Your task to perform on an android device: open app "Facebook Messenger" (install if not already installed) and enter user name: "divorce@inbox.com" and password: "caviar" Image 0: 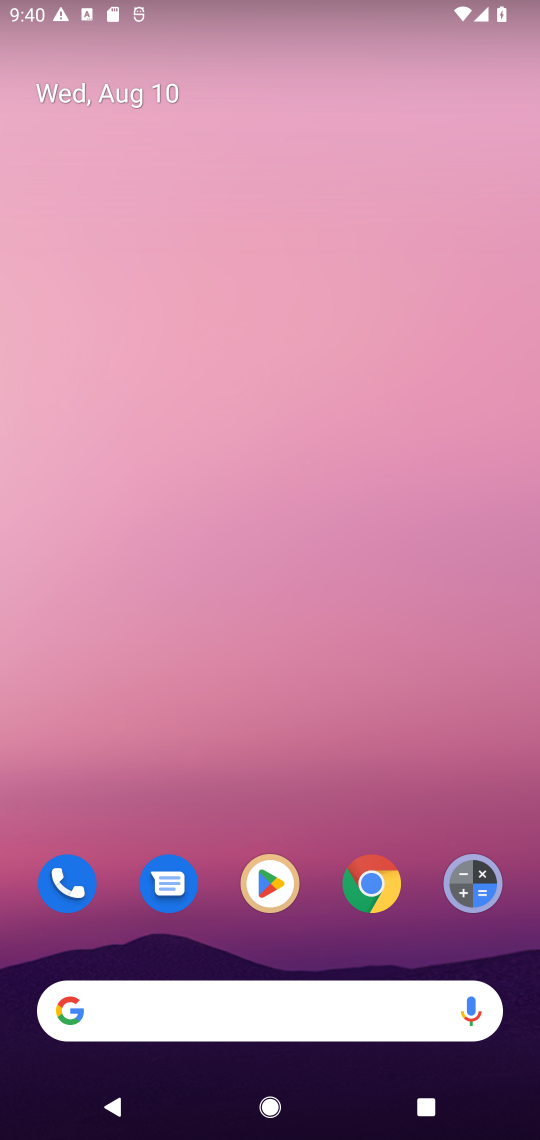
Step 0: drag from (333, 929) to (317, 109)
Your task to perform on an android device: open app "Facebook Messenger" (install if not already installed) and enter user name: "divorce@inbox.com" and password: "caviar" Image 1: 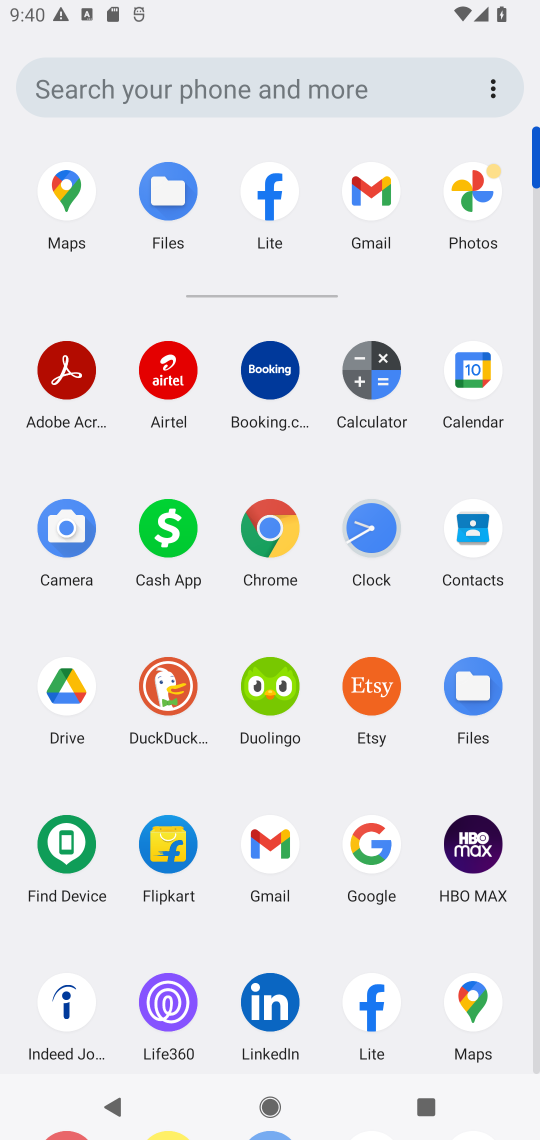
Step 1: drag from (335, 990) to (326, 537)
Your task to perform on an android device: open app "Facebook Messenger" (install if not already installed) and enter user name: "divorce@inbox.com" and password: "caviar" Image 2: 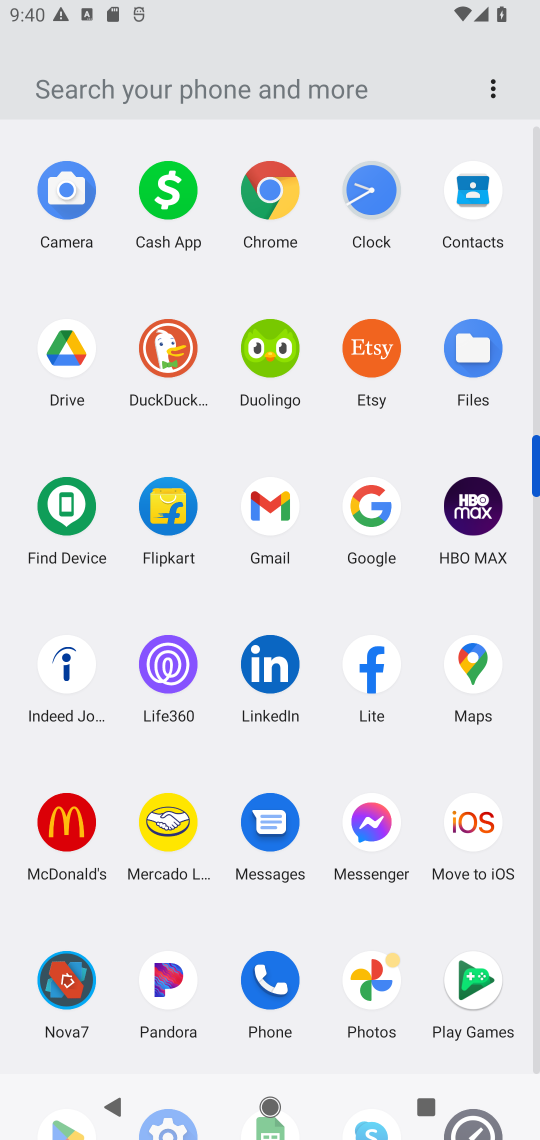
Step 2: drag from (358, 982) to (355, 569)
Your task to perform on an android device: open app "Facebook Messenger" (install if not already installed) and enter user name: "divorce@inbox.com" and password: "caviar" Image 3: 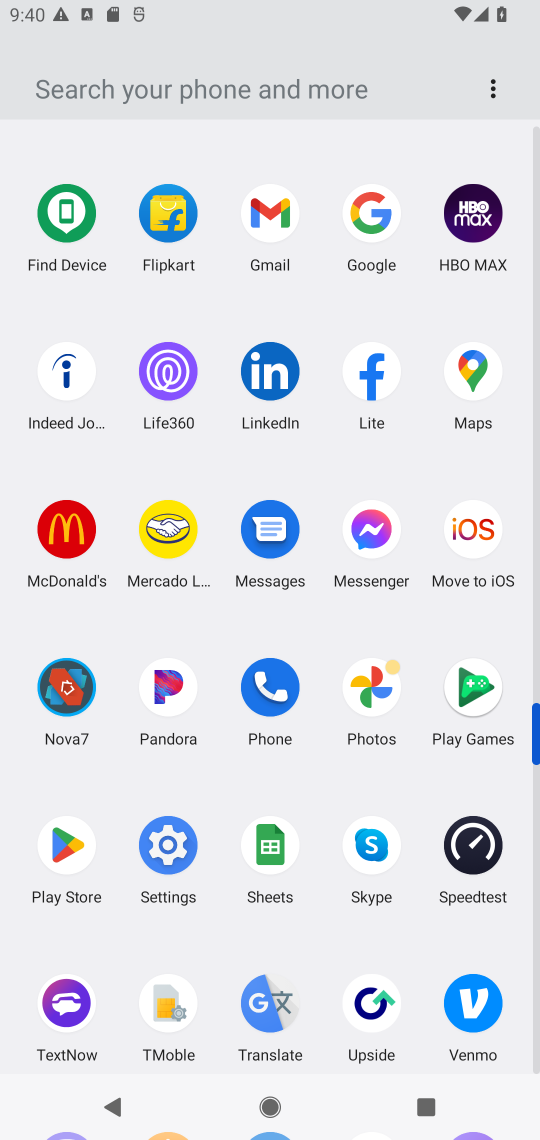
Step 3: click (65, 854)
Your task to perform on an android device: open app "Facebook Messenger" (install if not already installed) and enter user name: "divorce@inbox.com" and password: "caviar" Image 4: 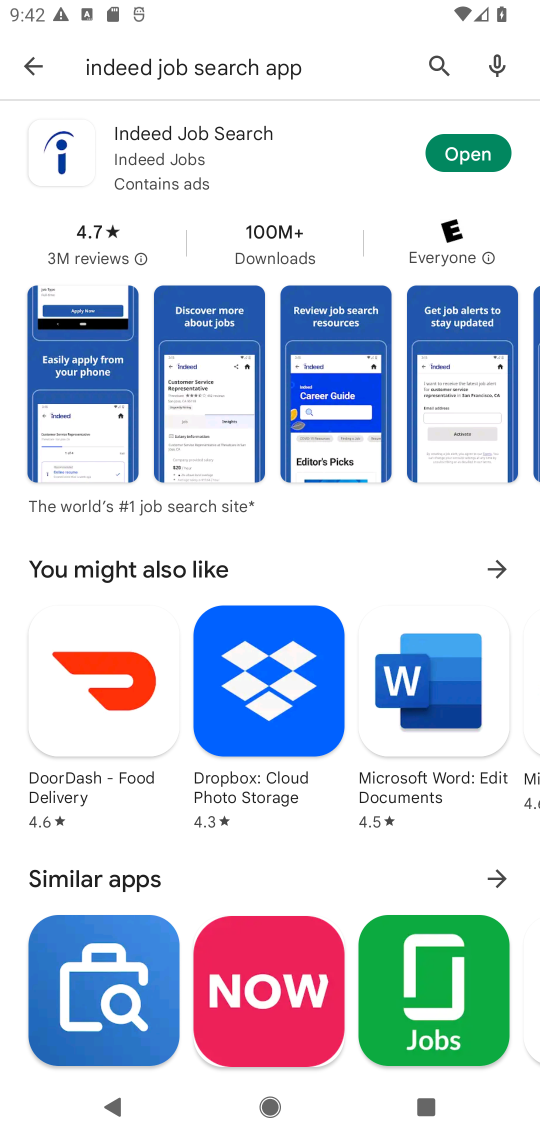
Step 4: click (441, 65)
Your task to perform on an android device: open app "Facebook Messenger" (install if not already installed) and enter user name: "divorce@inbox.com" and password: "caviar" Image 5: 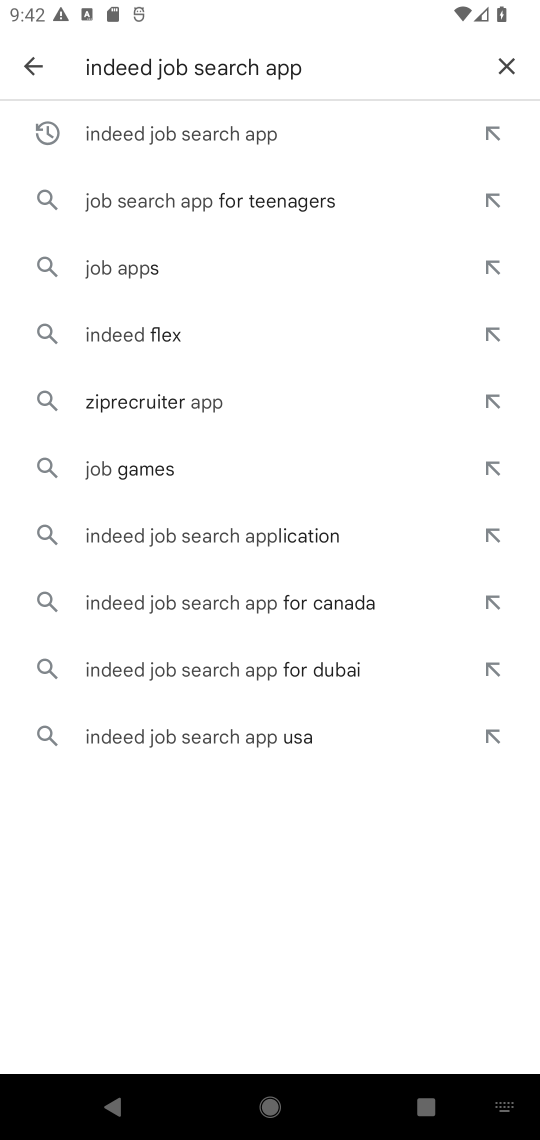
Step 5: click (508, 62)
Your task to perform on an android device: open app "Facebook Messenger" (install if not already installed) and enter user name: "divorce@inbox.com" and password: "caviar" Image 6: 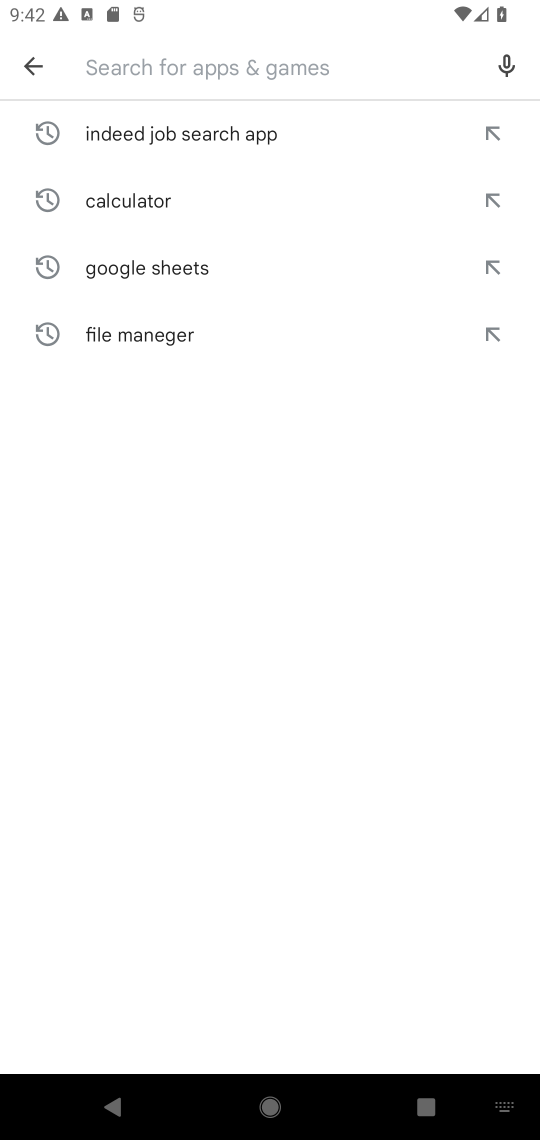
Step 6: type "Facebook Messenger"
Your task to perform on an android device: open app "Facebook Messenger" (install if not already installed) and enter user name: "divorce@inbox.com" and password: "caviar" Image 7: 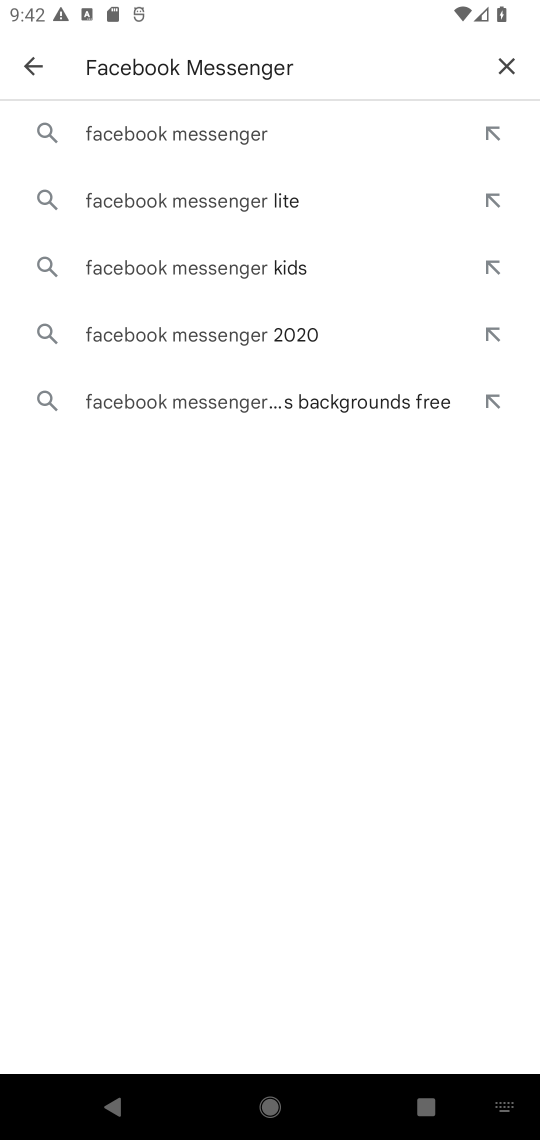
Step 7: click (191, 135)
Your task to perform on an android device: open app "Facebook Messenger" (install if not already installed) and enter user name: "divorce@inbox.com" and password: "caviar" Image 8: 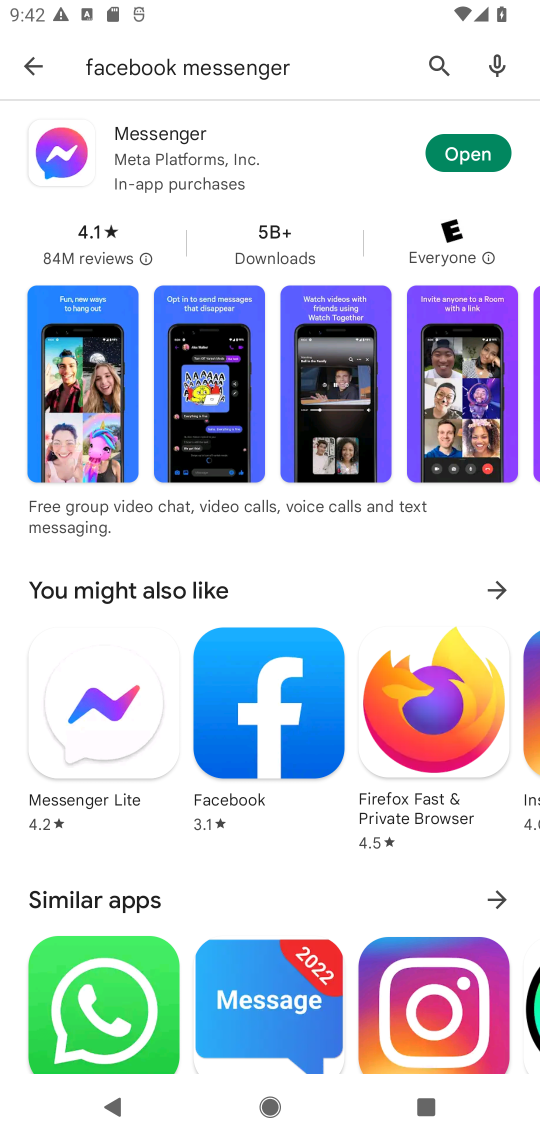
Step 8: click (460, 149)
Your task to perform on an android device: open app "Facebook Messenger" (install if not already installed) and enter user name: "divorce@inbox.com" and password: "caviar" Image 9: 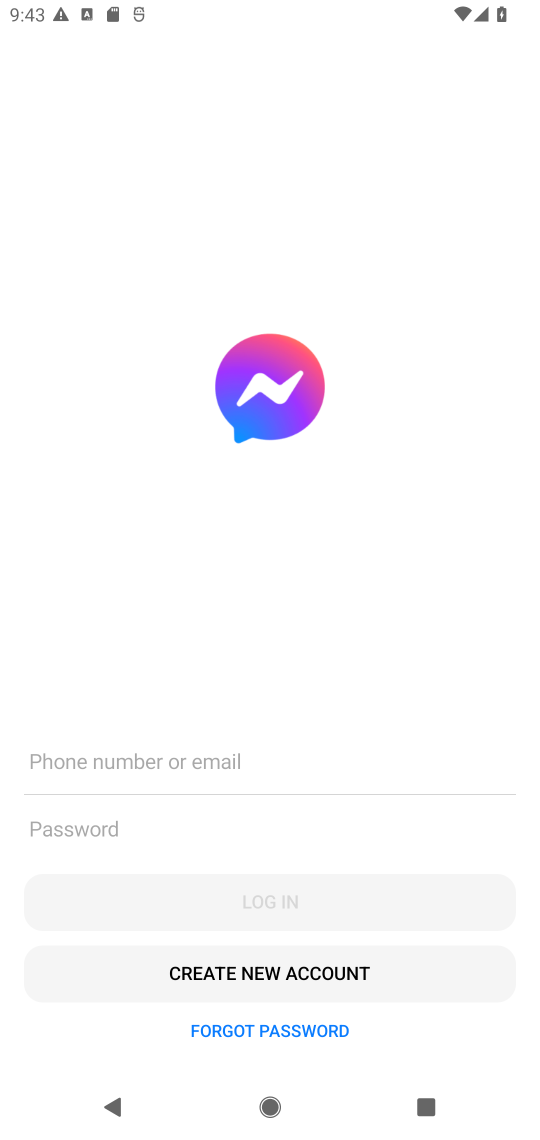
Step 9: click (253, 889)
Your task to perform on an android device: open app "Facebook Messenger" (install if not already installed) and enter user name: "divorce@inbox.com" and password: "caviar" Image 10: 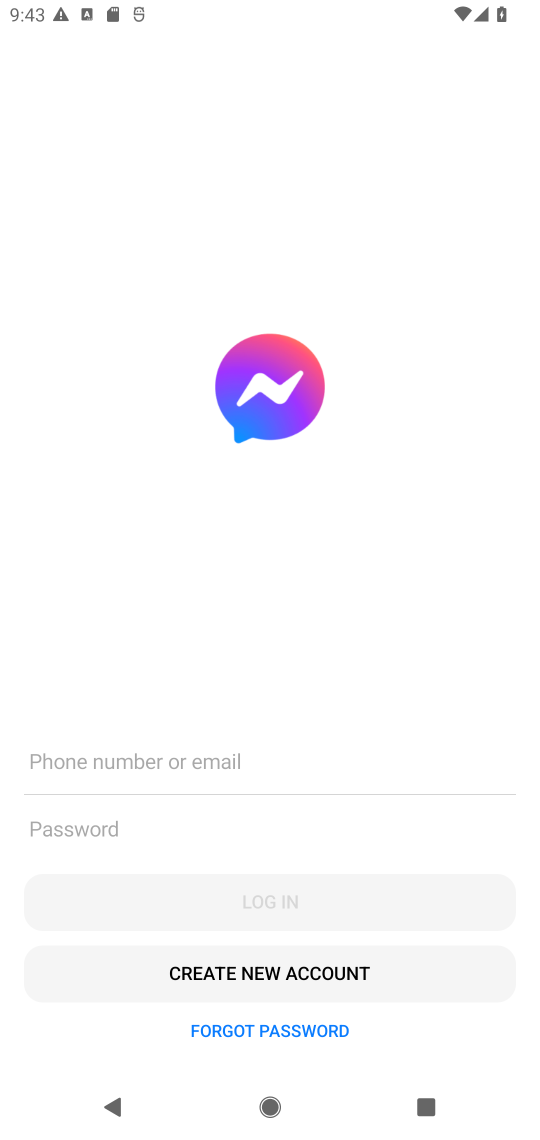
Step 10: drag from (253, 886) to (239, 524)
Your task to perform on an android device: open app "Facebook Messenger" (install if not already installed) and enter user name: "divorce@inbox.com" and password: "caviar" Image 11: 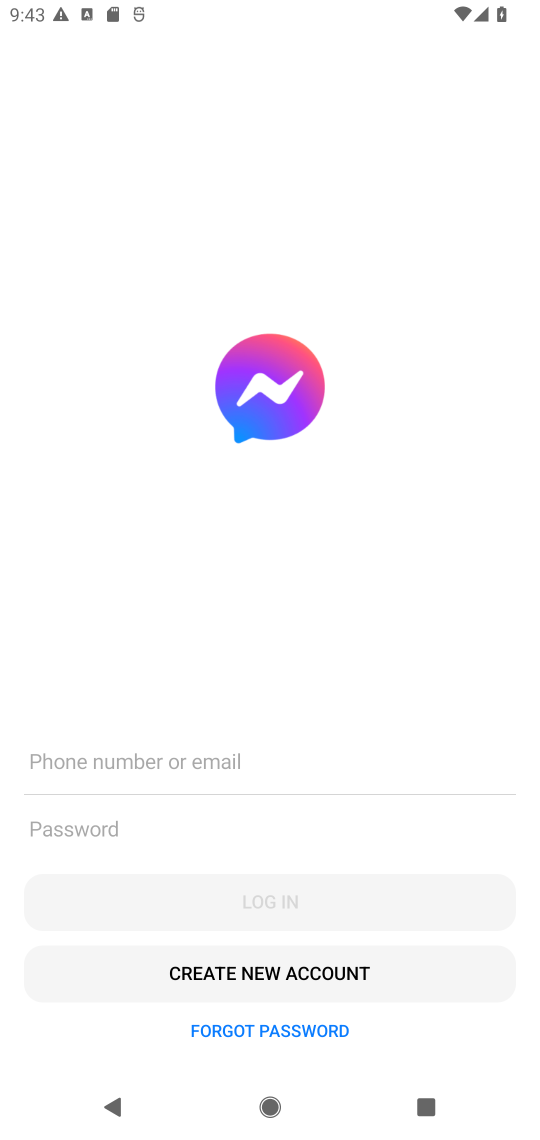
Step 11: click (229, 762)
Your task to perform on an android device: open app "Facebook Messenger" (install if not already installed) and enter user name: "divorce@inbox.com" and password: "caviar" Image 12: 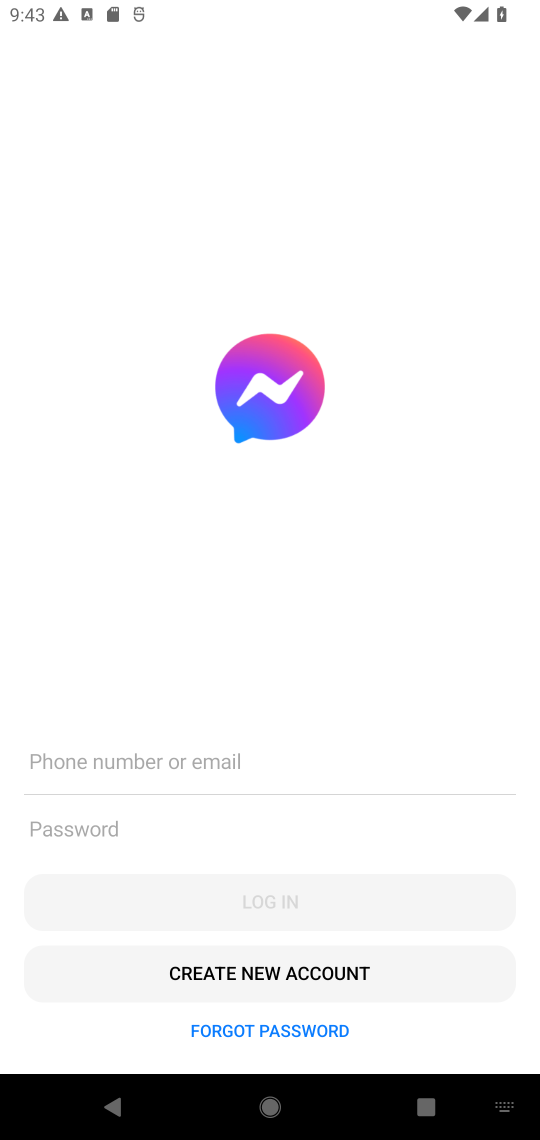
Step 12: type "divorce@inbox.com"
Your task to perform on an android device: open app "Facebook Messenger" (install if not already installed) and enter user name: "divorce@inbox.com" and password: "caviar" Image 13: 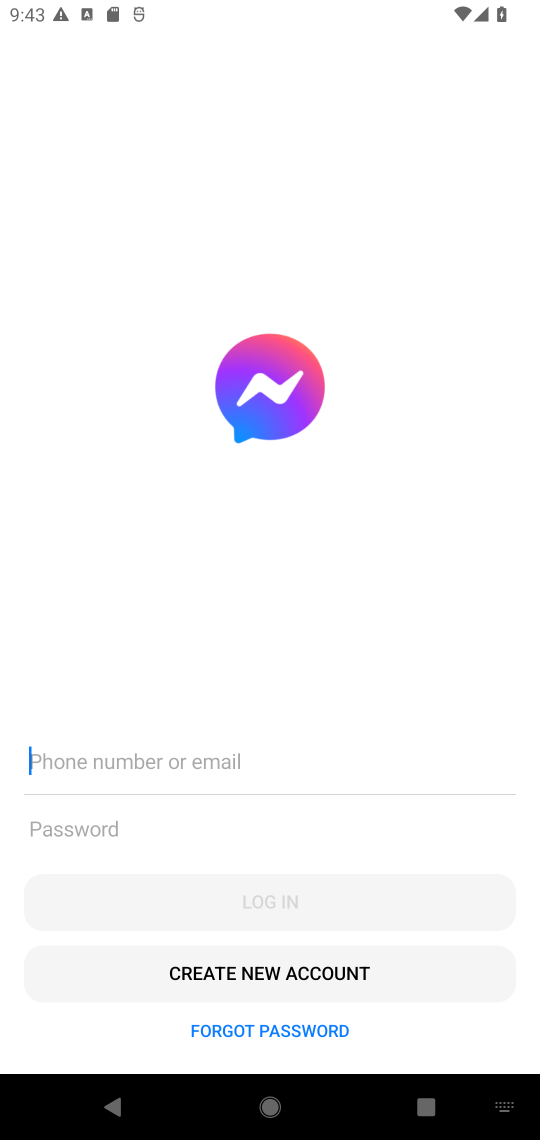
Step 13: click (123, 820)
Your task to perform on an android device: open app "Facebook Messenger" (install if not already installed) and enter user name: "divorce@inbox.com" and password: "caviar" Image 14: 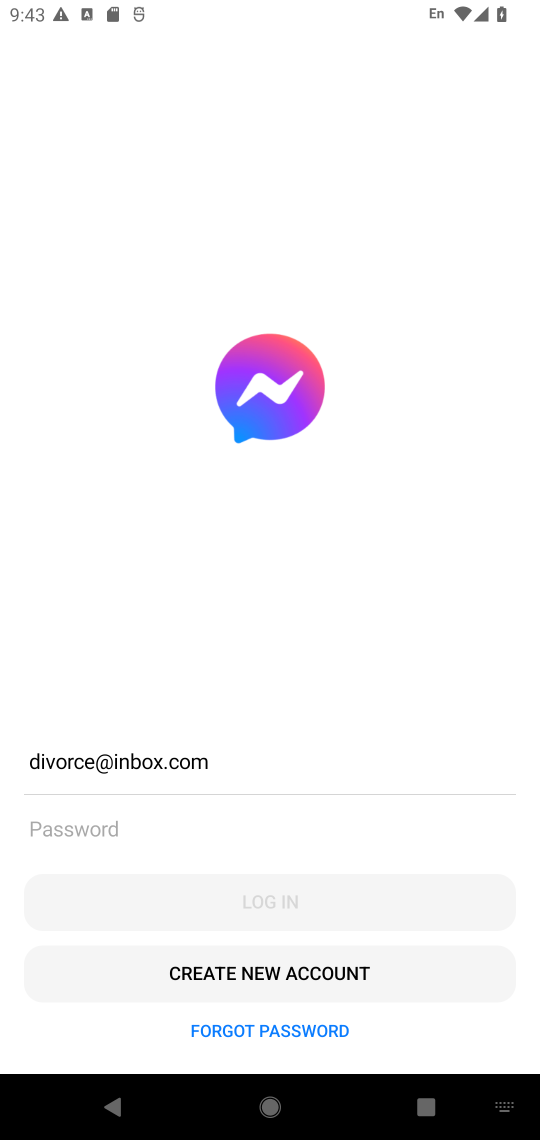
Step 14: click (119, 820)
Your task to perform on an android device: open app "Facebook Messenger" (install if not already installed) and enter user name: "divorce@inbox.com" and password: "caviar" Image 15: 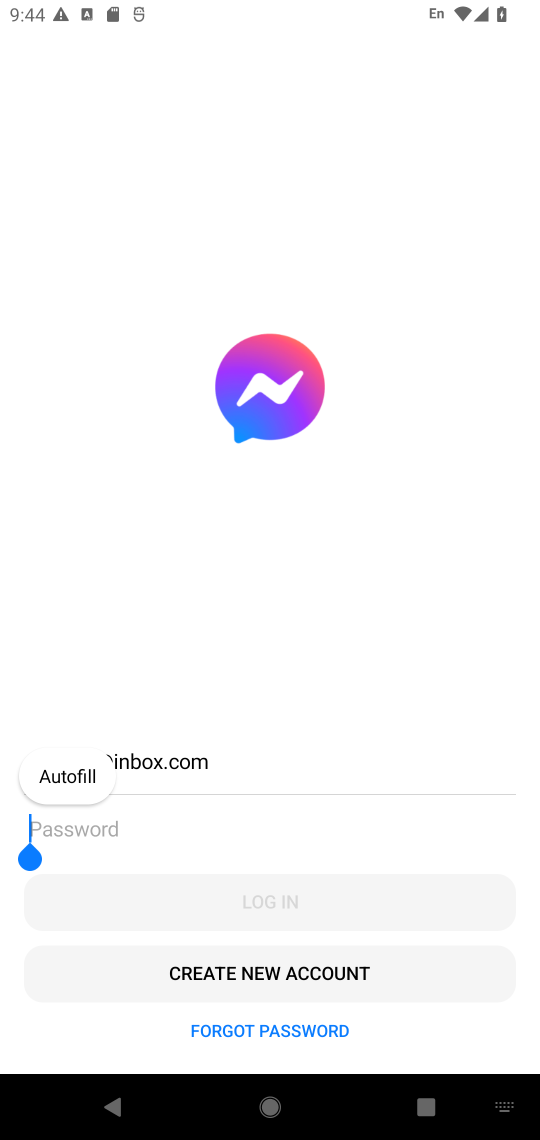
Step 15: type "divorce@inbox.com"
Your task to perform on an android device: open app "Facebook Messenger" (install if not already installed) and enter user name: "divorce@inbox.com" and password: "caviar" Image 16: 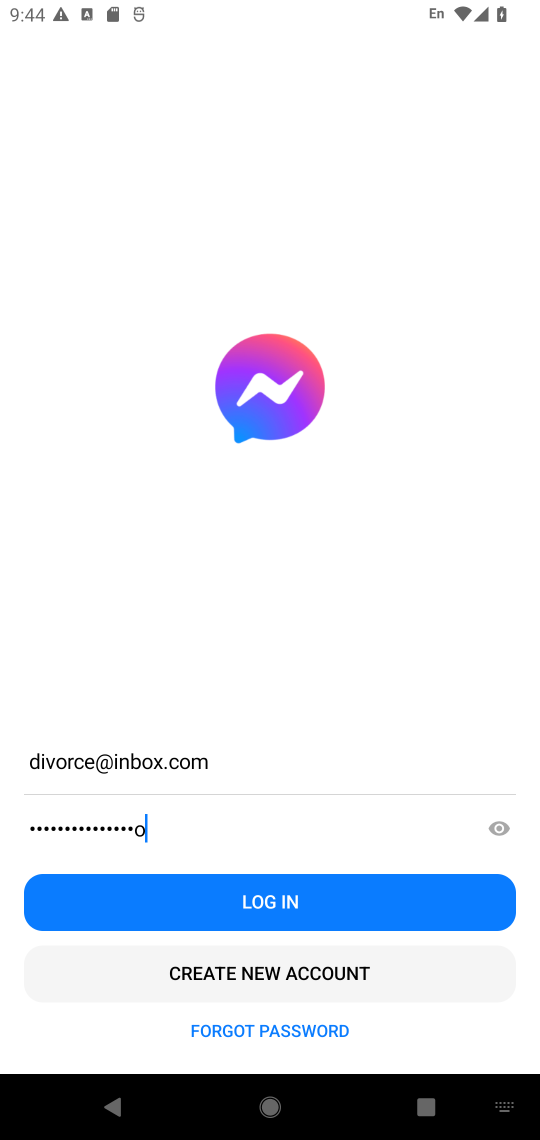
Step 16: type ""
Your task to perform on an android device: open app "Facebook Messenger" (install if not already installed) and enter user name: "divorce@inbox.com" and password: "caviar" Image 17: 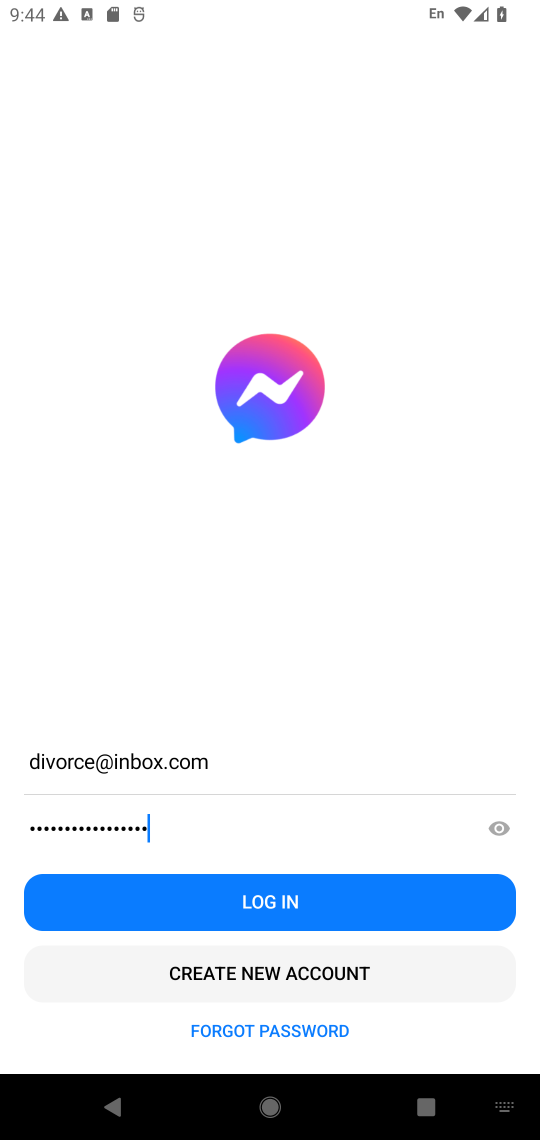
Step 17: task complete